Your task to perform on an android device: turn off priority inbox in the gmail app Image 0: 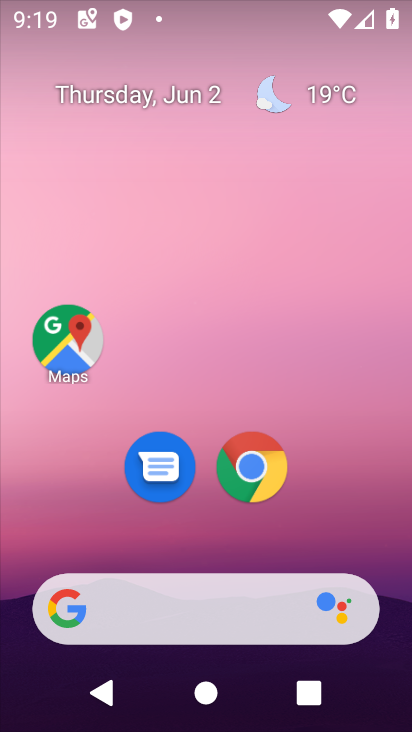
Step 0: drag from (187, 537) to (226, 149)
Your task to perform on an android device: turn off priority inbox in the gmail app Image 1: 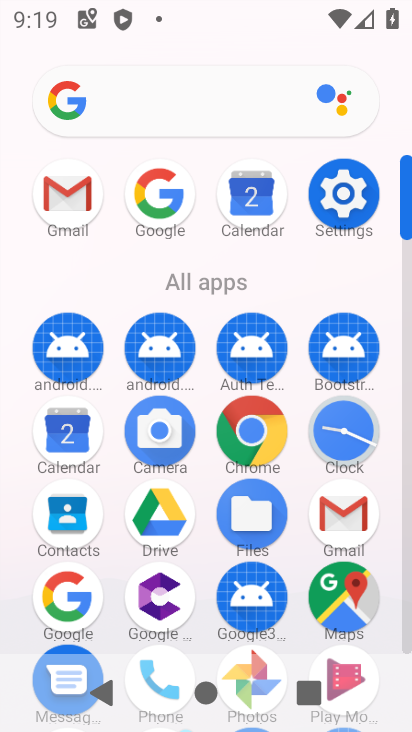
Step 1: click (69, 182)
Your task to perform on an android device: turn off priority inbox in the gmail app Image 2: 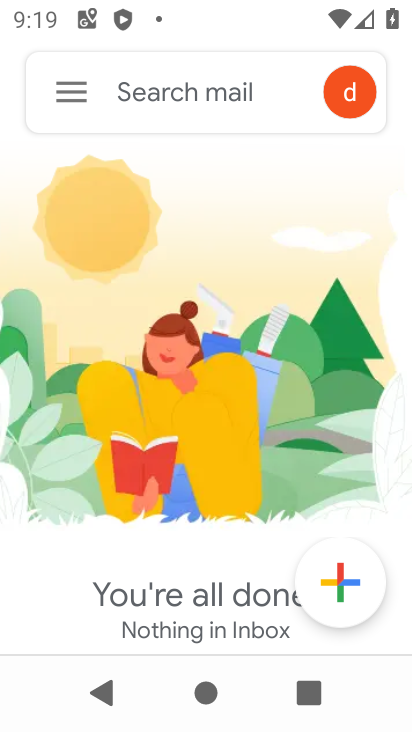
Step 2: click (60, 88)
Your task to perform on an android device: turn off priority inbox in the gmail app Image 3: 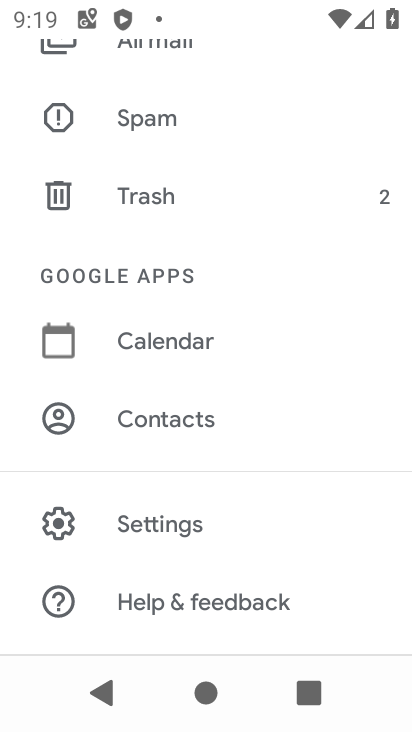
Step 3: click (160, 533)
Your task to perform on an android device: turn off priority inbox in the gmail app Image 4: 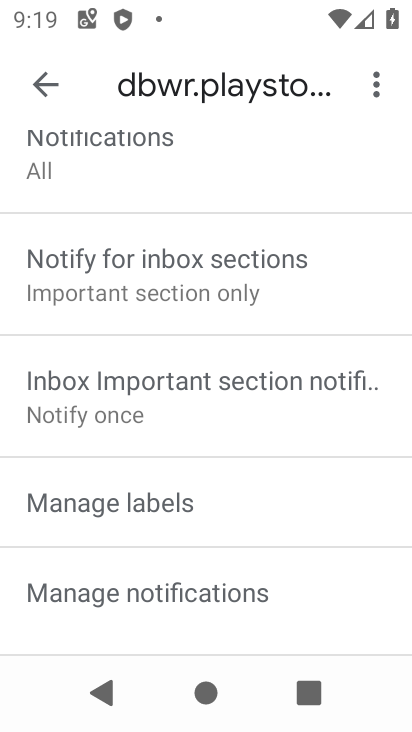
Step 4: drag from (169, 292) to (156, 539)
Your task to perform on an android device: turn off priority inbox in the gmail app Image 5: 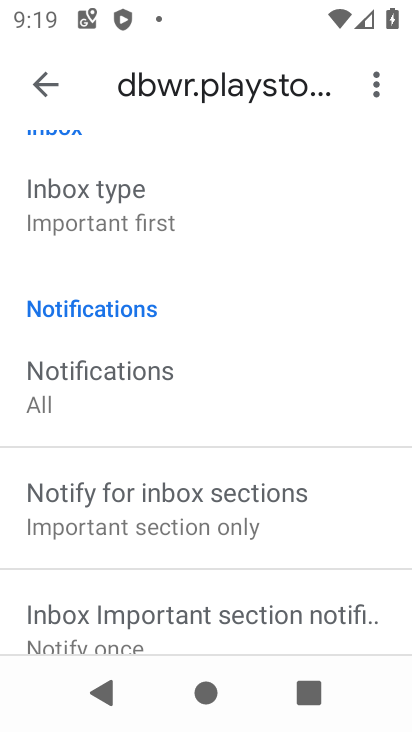
Step 5: drag from (186, 343) to (186, 611)
Your task to perform on an android device: turn off priority inbox in the gmail app Image 6: 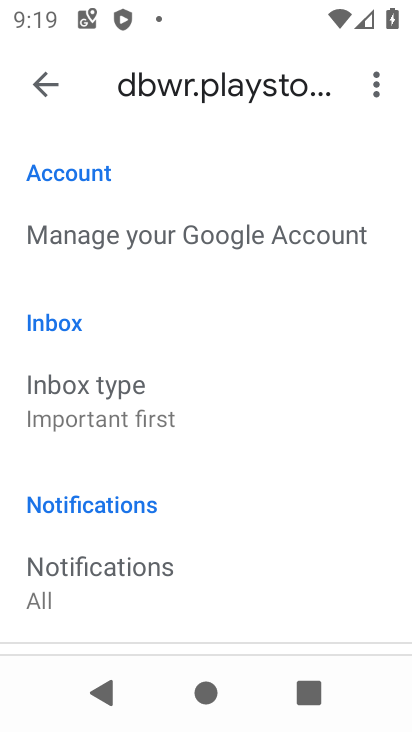
Step 6: drag from (191, 376) to (187, 599)
Your task to perform on an android device: turn off priority inbox in the gmail app Image 7: 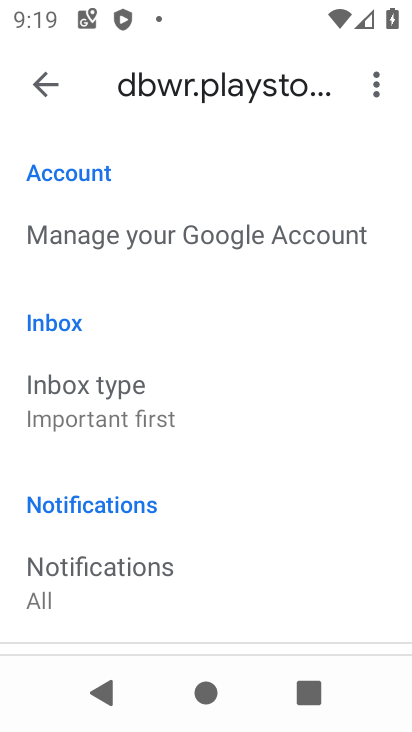
Step 7: drag from (178, 334) to (157, 597)
Your task to perform on an android device: turn off priority inbox in the gmail app Image 8: 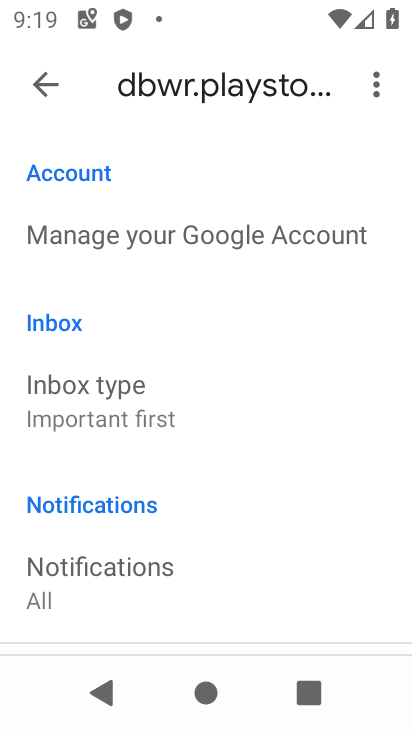
Step 8: drag from (127, 353) to (120, 583)
Your task to perform on an android device: turn off priority inbox in the gmail app Image 9: 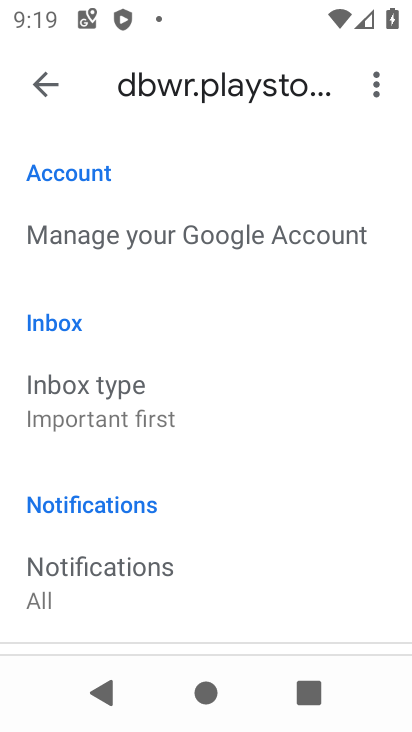
Step 9: click (84, 407)
Your task to perform on an android device: turn off priority inbox in the gmail app Image 10: 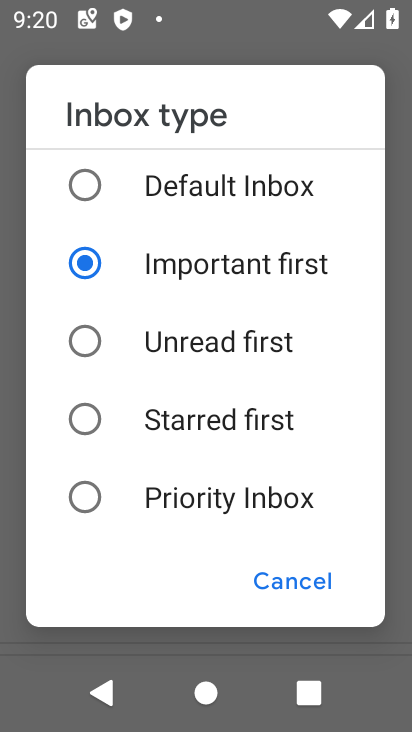
Step 10: task complete